Your task to perform on an android device: Check the news Image 0: 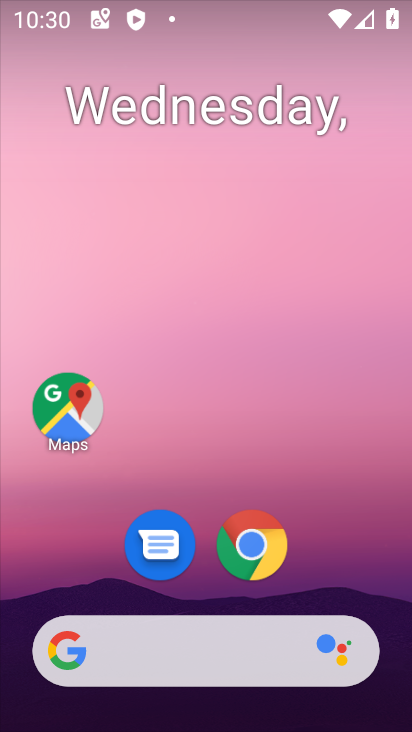
Step 0: drag from (195, 587) to (194, 303)
Your task to perform on an android device: Check the news Image 1: 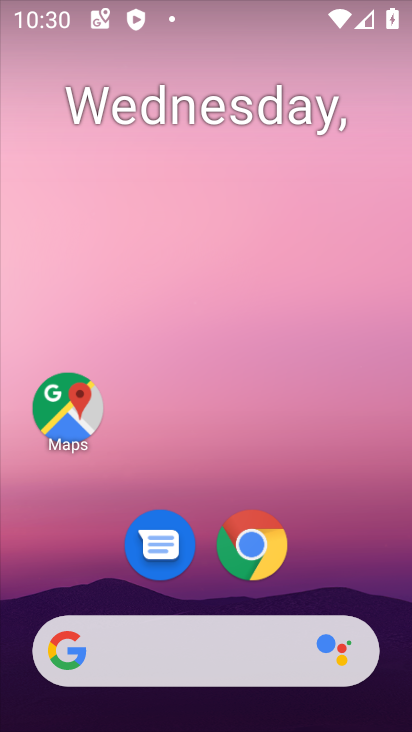
Step 1: drag from (204, 591) to (204, 218)
Your task to perform on an android device: Check the news Image 2: 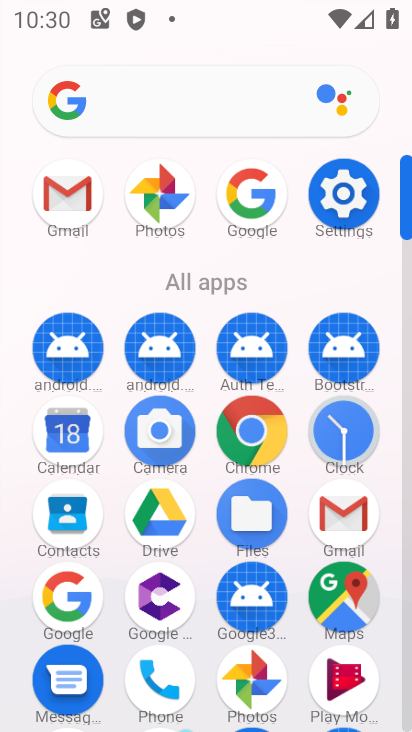
Step 2: click (260, 194)
Your task to perform on an android device: Check the news Image 3: 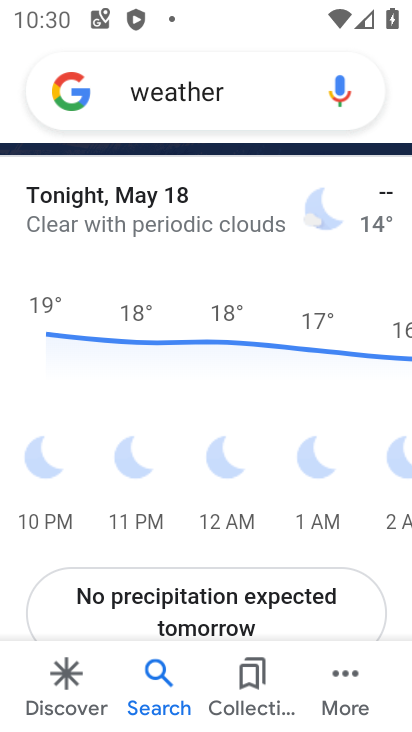
Step 3: click (237, 86)
Your task to perform on an android device: Check the news Image 4: 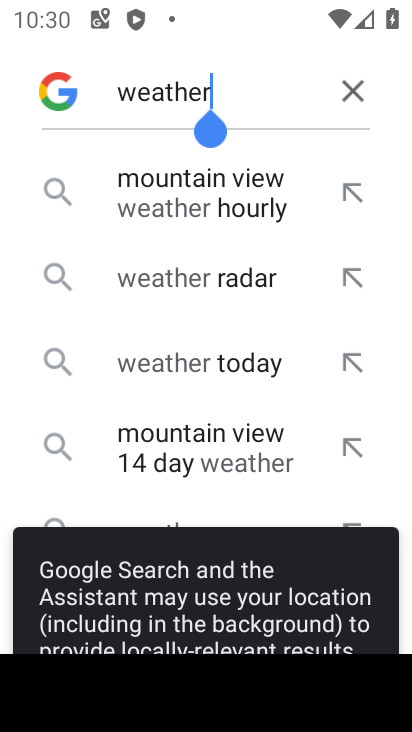
Step 4: click (345, 87)
Your task to perform on an android device: Check the news Image 5: 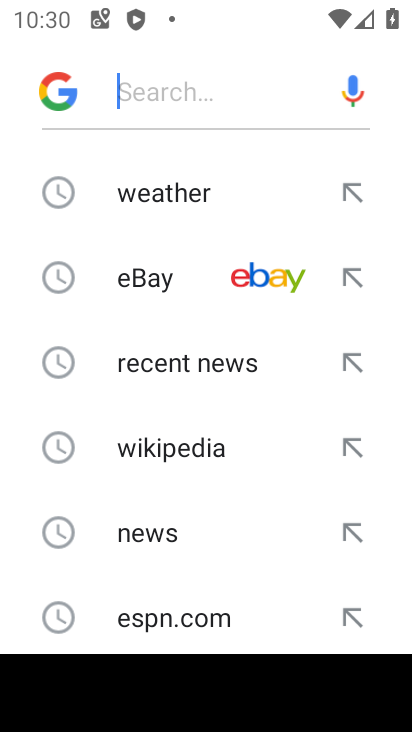
Step 5: drag from (193, 422) to (217, 204)
Your task to perform on an android device: Check the news Image 6: 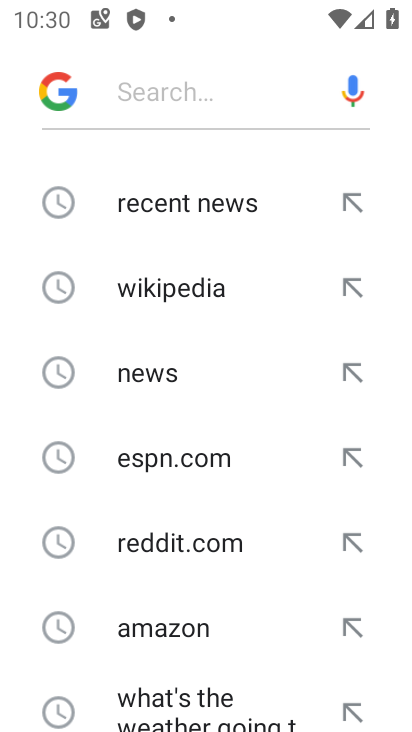
Step 6: click (187, 362)
Your task to perform on an android device: Check the news Image 7: 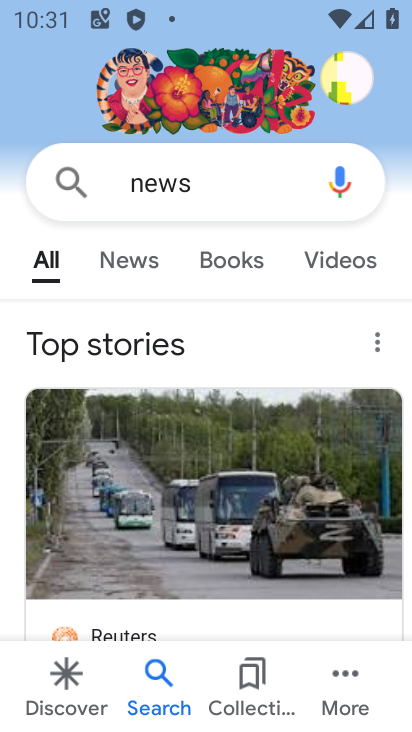
Step 7: click (142, 248)
Your task to perform on an android device: Check the news Image 8: 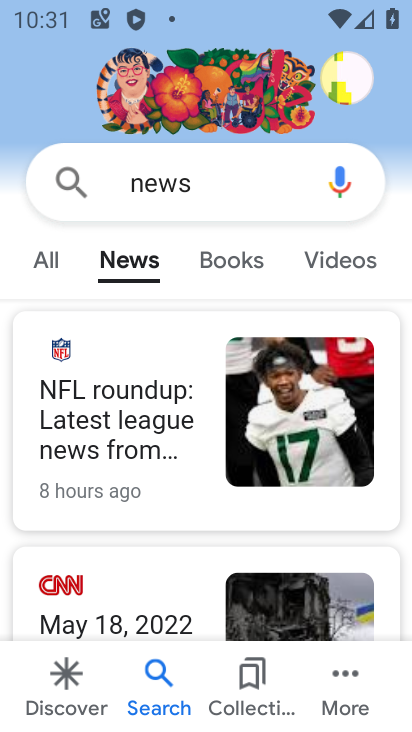
Step 8: task complete